Your task to perform on an android device: Go to Google Image 0: 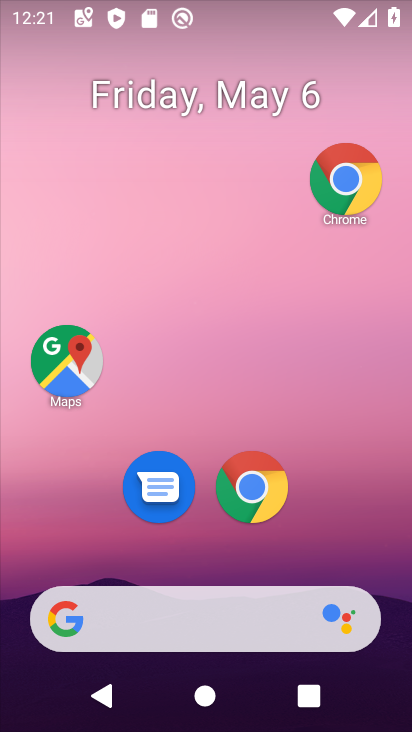
Step 0: click (353, 545)
Your task to perform on an android device: Go to Google Image 1: 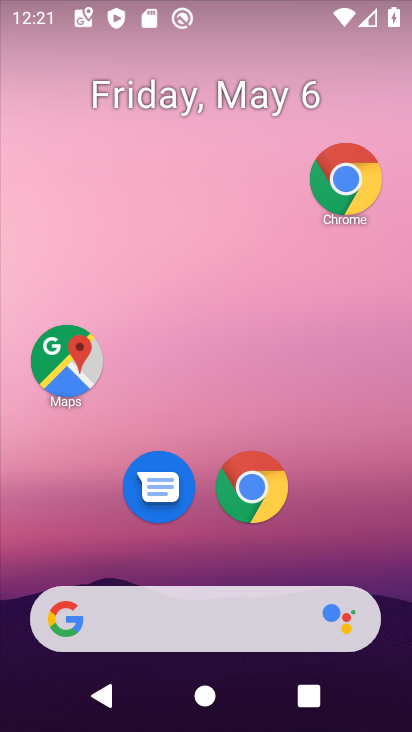
Step 1: click (260, 484)
Your task to perform on an android device: Go to Google Image 2: 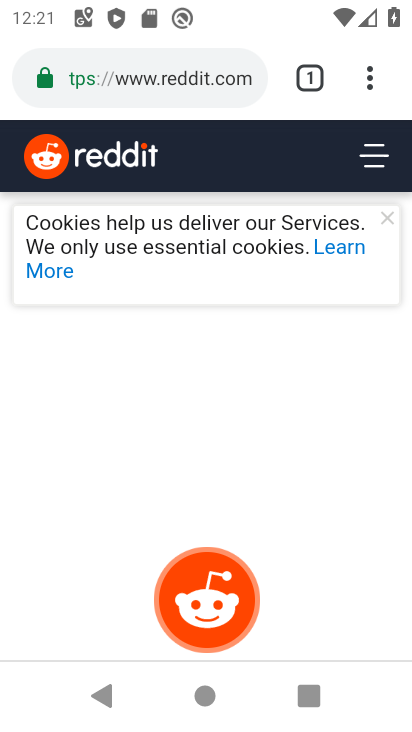
Step 2: click (230, 84)
Your task to perform on an android device: Go to Google Image 3: 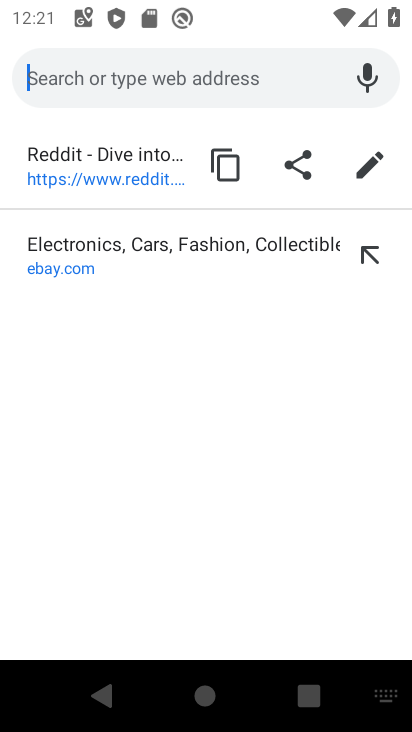
Step 3: type "google.com"
Your task to perform on an android device: Go to Google Image 4: 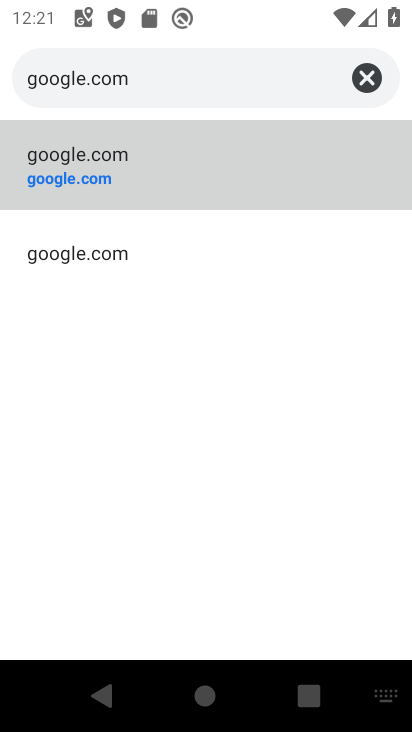
Step 4: click (102, 173)
Your task to perform on an android device: Go to Google Image 5: 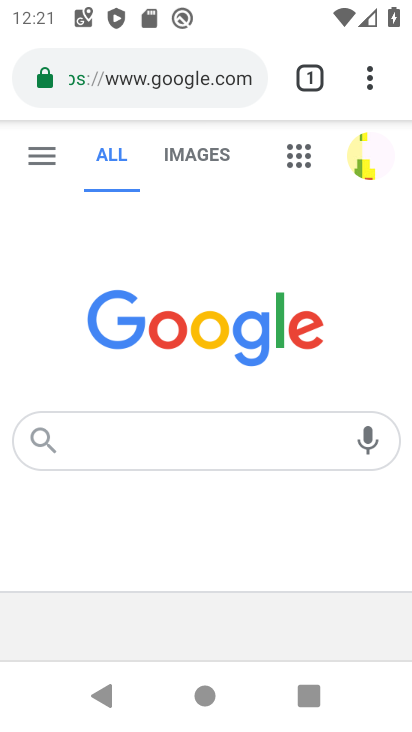
Step 5: task complete